Your task to perform on an android device: move an email to a new category in the gmail app Image 0: 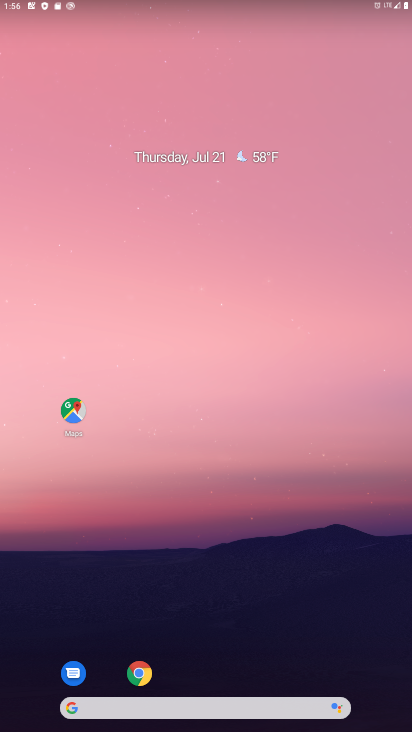
Step 0: drag from (208, 682) to (253, 176)
Your task to perform on an android device: move an email to a new category in the gmail app Image 1: 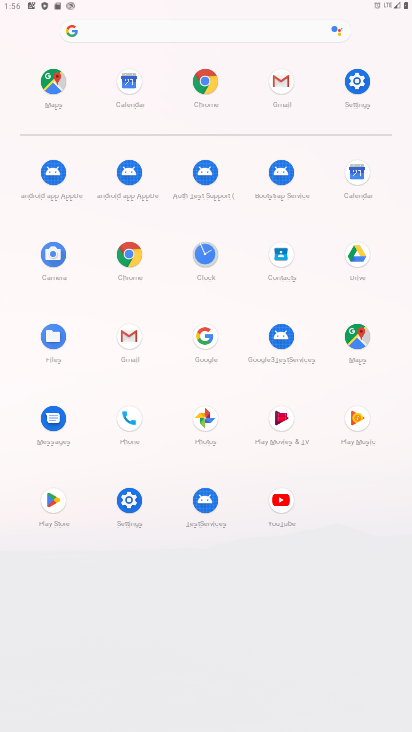
Step 1: click (205, 82)
Your task to perform on an android device: move an email to a new category in the gmail app Image 2: 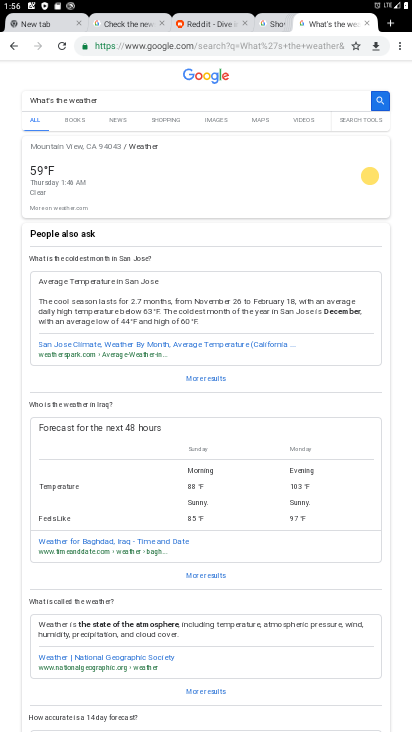
Step 2: press home button
Your task to perform on an android device: move an email to a new category in the gmail app Image 3: 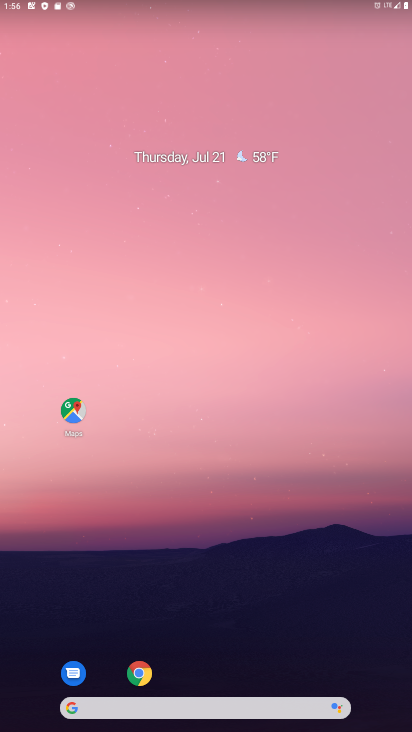
Step 3: drag from (240, 646) to (248, 242)
Your task to perform on an android device: move an email to a new category in the gmail app Image 4: 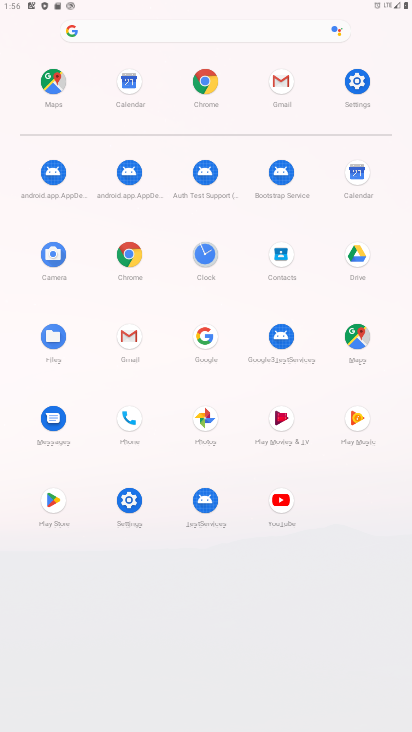
Step 4: click (140, 333)
Your task to perform on an android device: move an email to a new category in the gmail app Image 5: 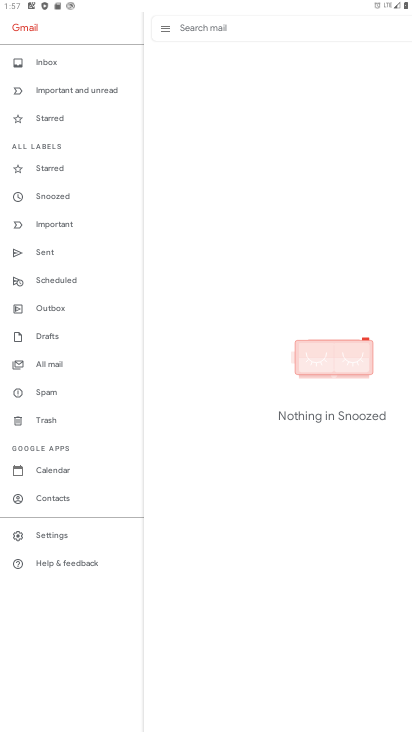
Step 5: click (75, 359)
Your task to perform on an android device: move an email to a new category in the gmail app Image 6: 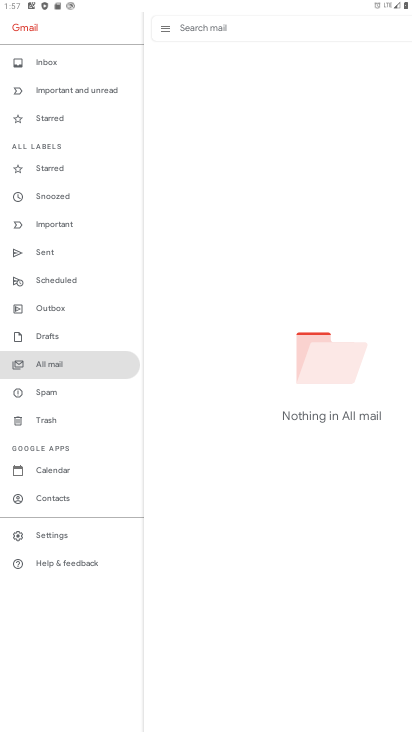
Step 6: task complete